Your task to perform on an android device: Check the weather Image 0: 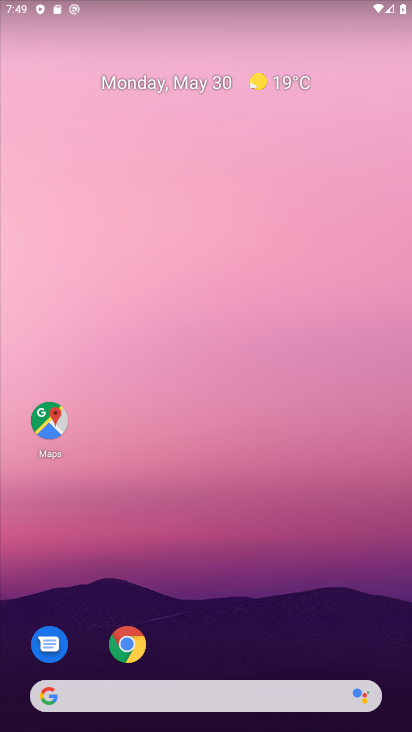
Step 0: drag from (238, 643) to (276, 112)
Your task to perform on an android device: Check the weather Image 1: 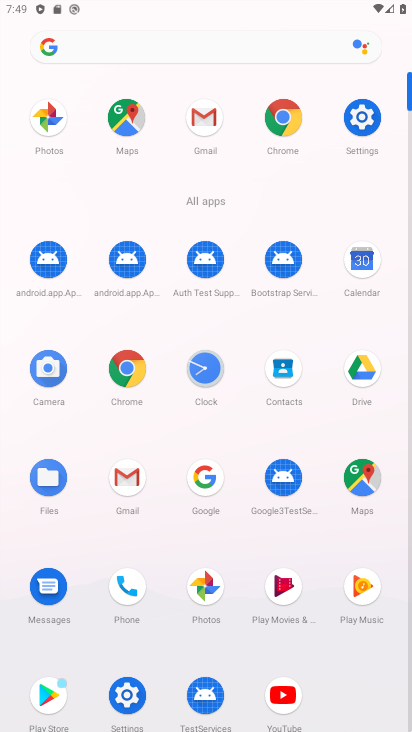
Step 1: click (196, 480)
Your task to perform on an android device: Check the weather Image 2: 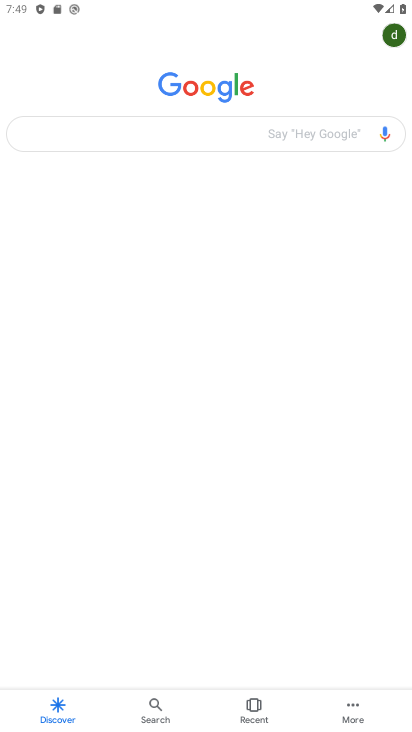
Step 2: click (147, 142)
Your task to perform on an android device: Check the weather Image 3: 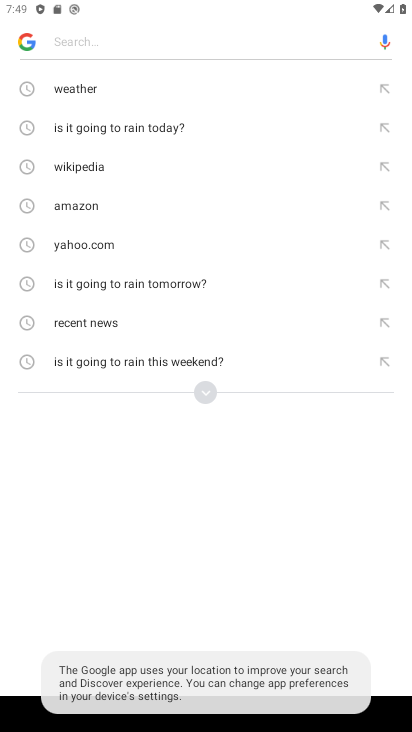
Step 3: click (103, 87)
Your task to perform on an android device: Check the weather Image 4: 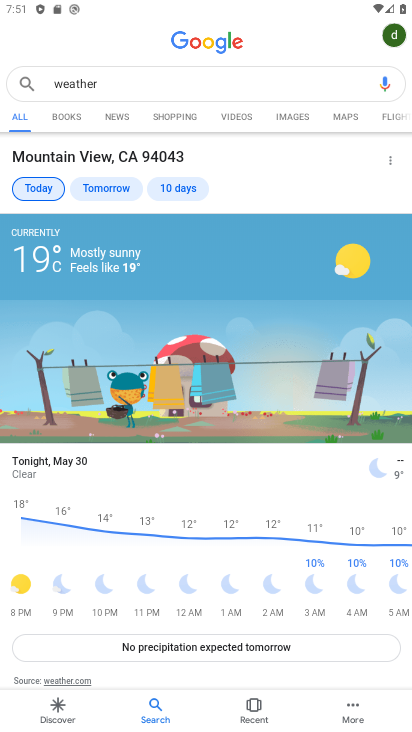
Step 4: task complete